Your task to perform on an android device: open chrome and create a bookmark for the current page Image 0: 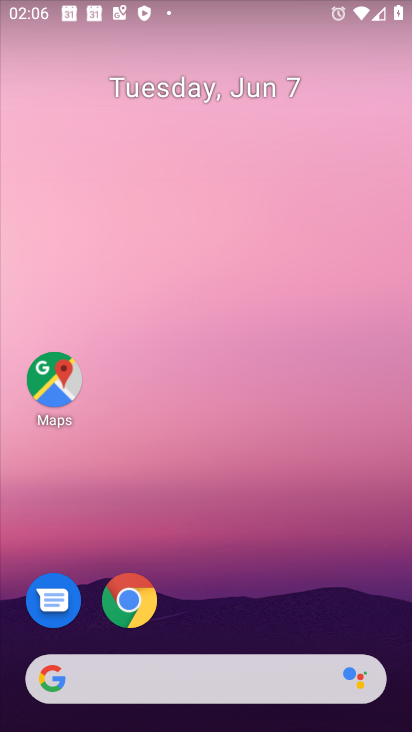
Step 0: click (125, 593)
Your task to perform on an android device: open chrome and create a bookmark for the current page Image 1: 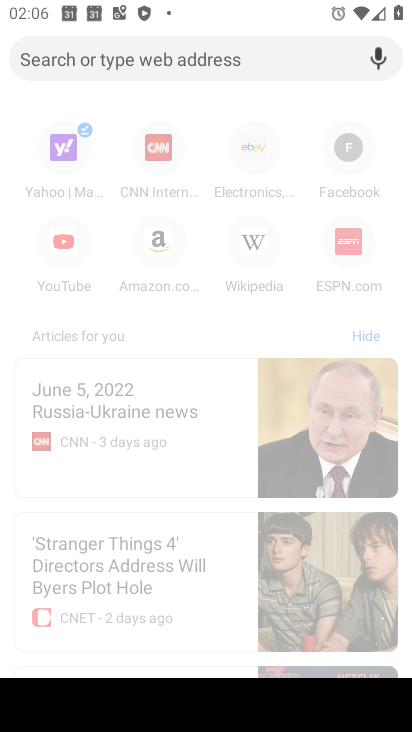
Step 1: click (298, 105)
Your task to perform on an android device: open chrome and create a bookmark for the current page Image 2: 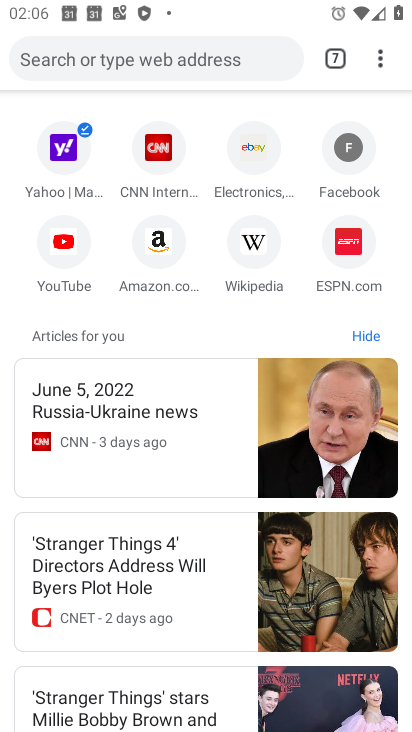
Step 2: click (381, 64)
Your task to perform on an android device: open chrome and create a bookmark for the current page Image 3: 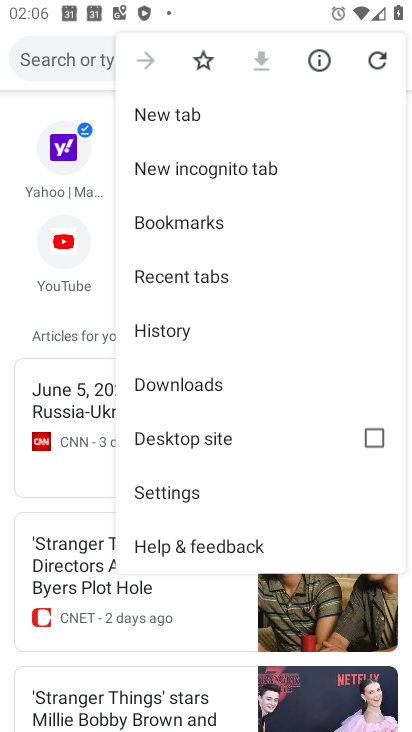
Step 3: click (204, 59)
Your task to perform on an android device: open chrome and create a bookmark for the current page Image 4: 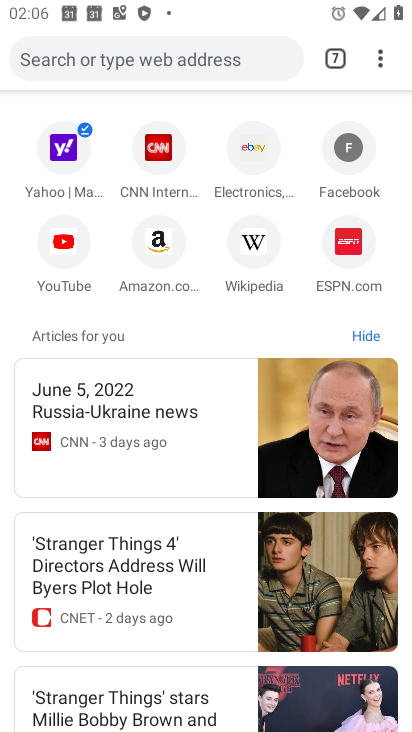
Step 4: task complete